Your task to perform on an android device: toggle data saver in the chrome app Image 0: 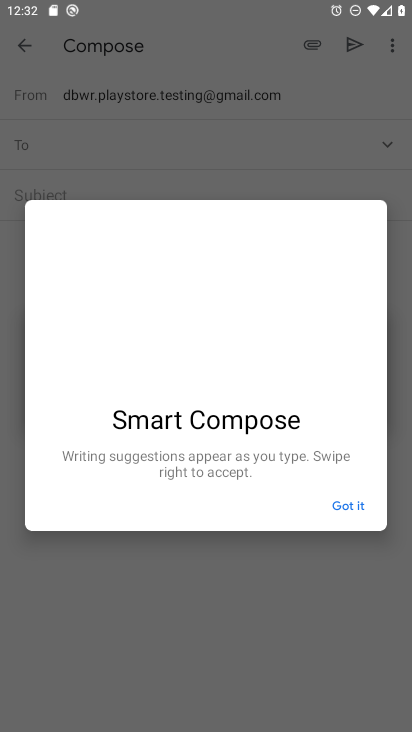
Step 0: press home button
Your task to perform on an android device: toggle data saver in the chrome app Image 1: 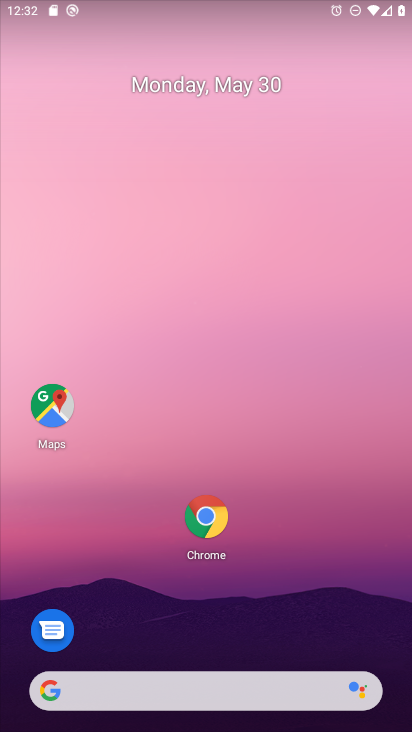
Step 1: click (208, 527)
Your task to perform on an android device: toggle data saver in the chrome app Image 2: 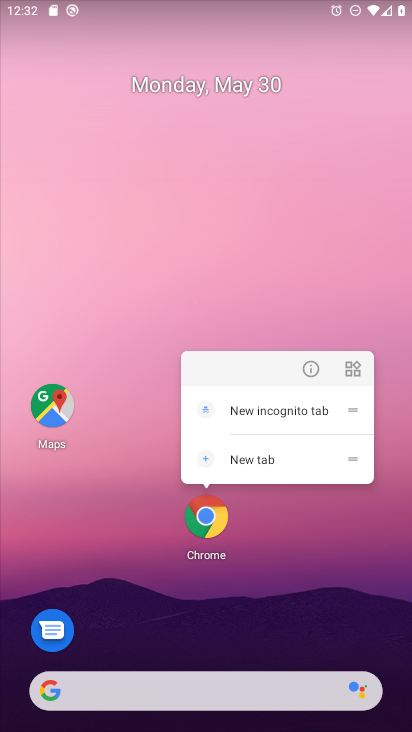
Step 2: click (211, 517)
Your task to perform on an android device: toggle data saver in the chrome app Image 3: 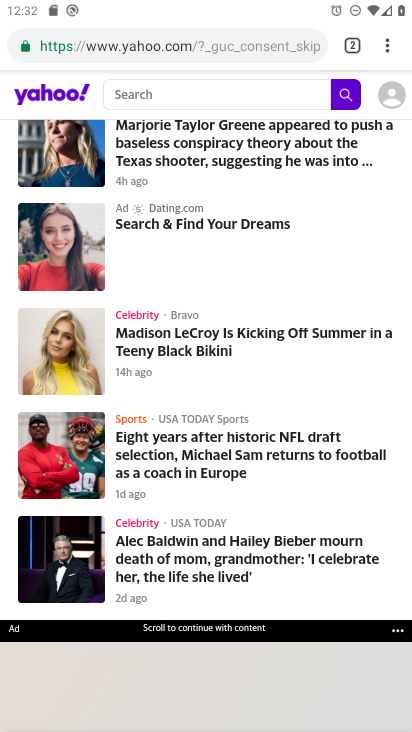
Step 3: drag from (388, 37) to (249, 553)
Your task to perform on an android device: toggle data saver in the chrome app Image 4: 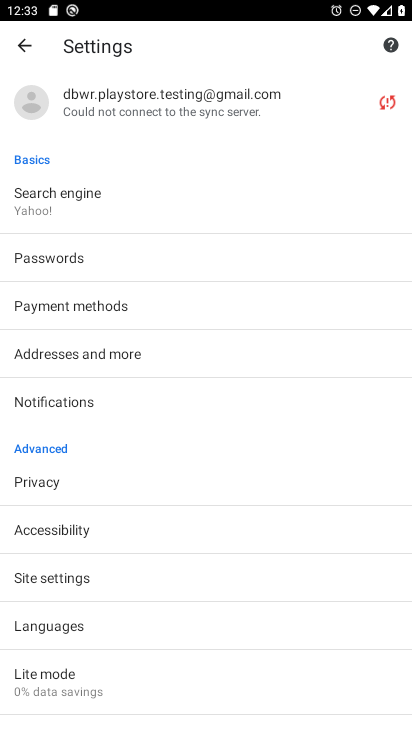
Step 4: drag from (195, 634) to (288, 329)
Your task to perform on an android device: toggle data saver in the chrome app Image 5: 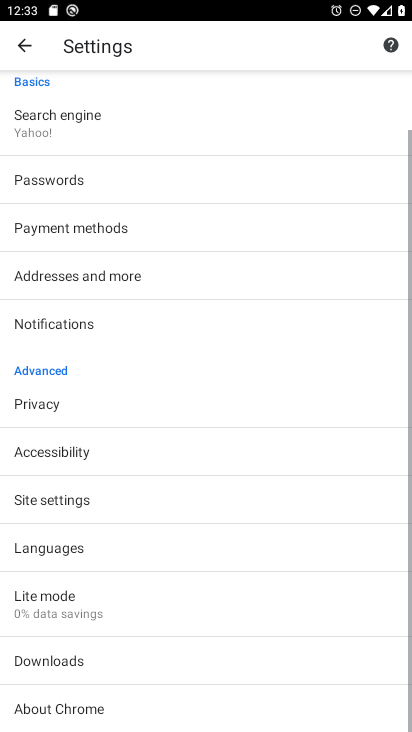
Step 5: click (76, 603)
Your task to perform on an android device: toggle data saver in the chrome app Image 6: 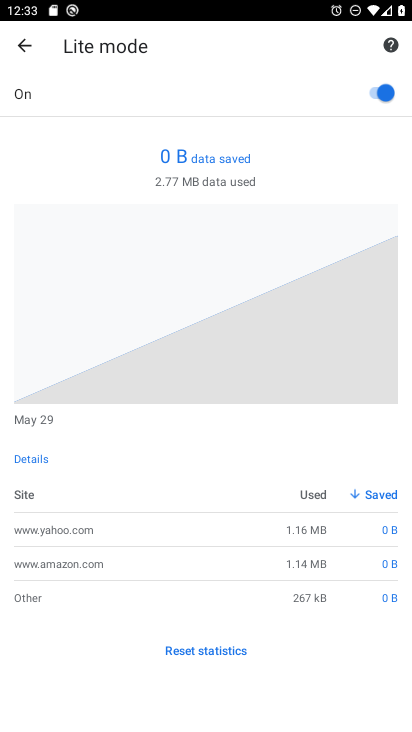
Step 6: click (371, 85)
Your task to perform on an android device: toggle data saver in the chrome app Image 7: 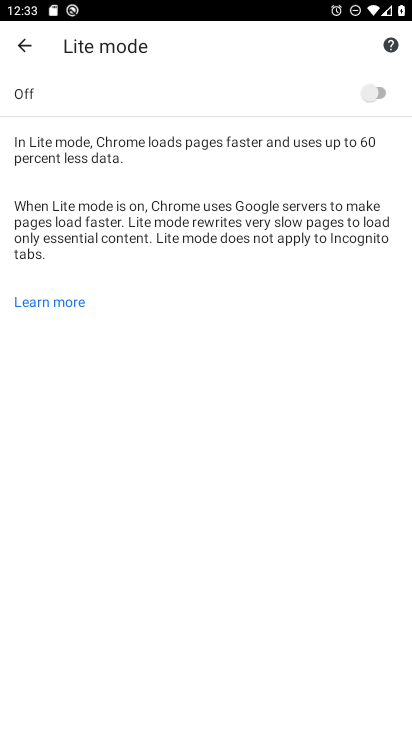
Step 7: task complete